Your task to perform on an android device: turn on priority inbox in the gmail app Image 0: 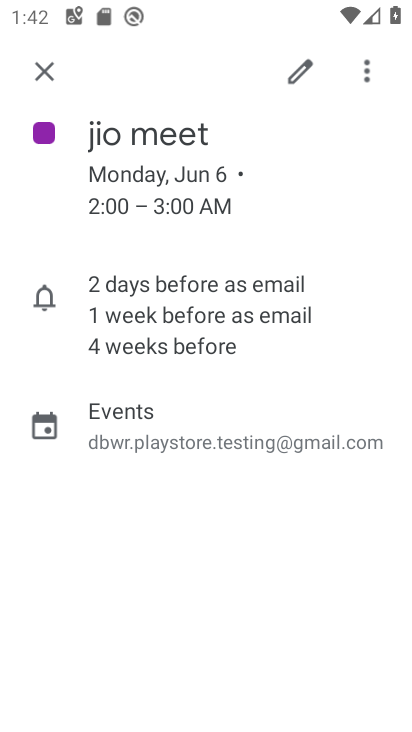
Step 0: press home button
Your task to perform on an android device: turn on priority inbox in the gmail app Image 1: 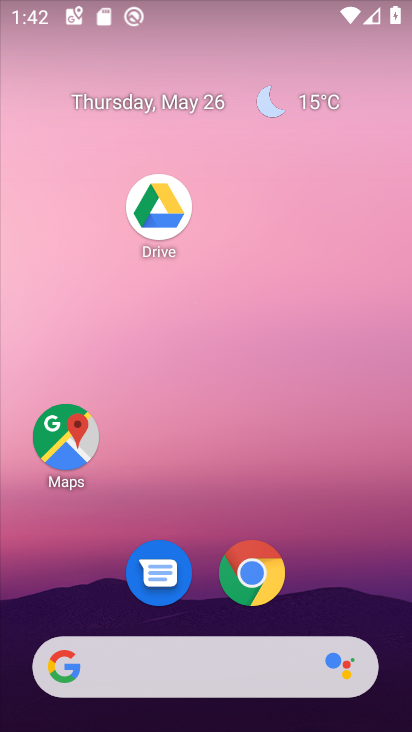
Step 1: drag from (343, 566) to (320, 210)
Your task to perform on an android device: turn on priority inbox in the gmail app Image 2: 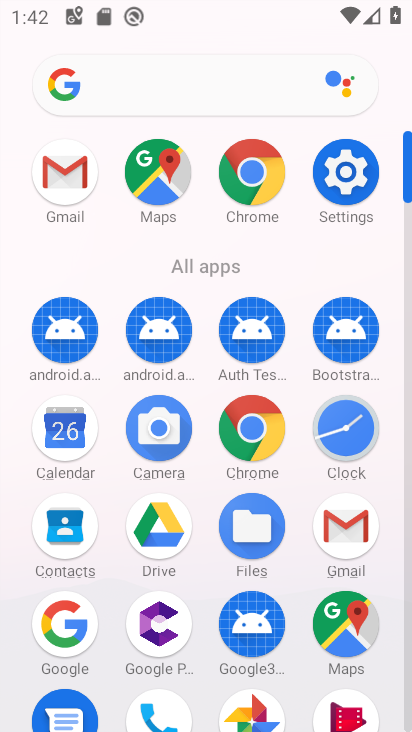
Step 2: click (71, 175)
Your task to perform on an android device: turn on priority inbox in the gmail app Image 3: 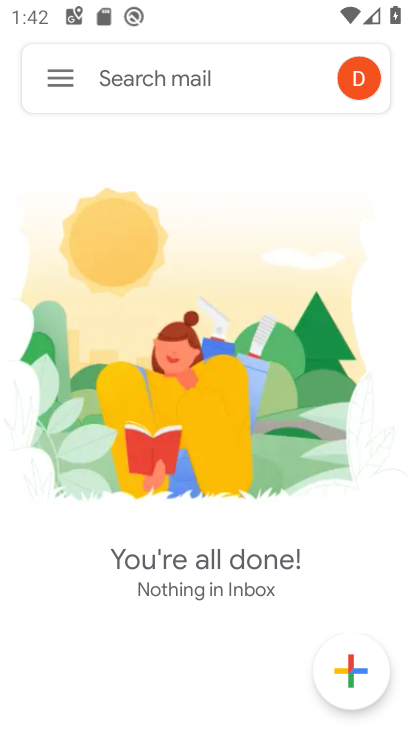
Step 3: click (77, 91)
Your task to perform on an android device: turn on priority inbox in the gmail app Image 4: 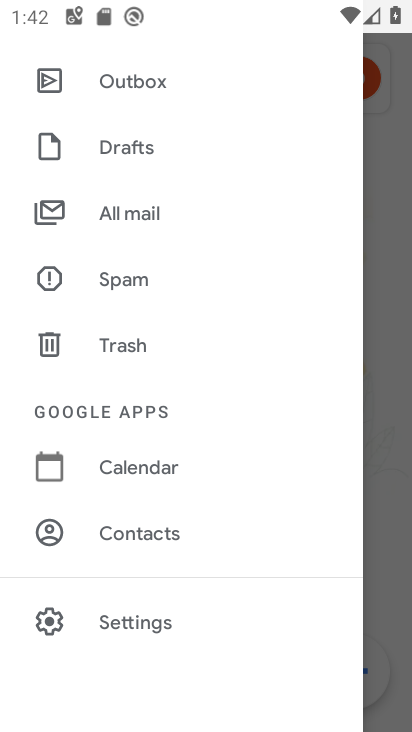
Step 4: click (164, 614)
Your task to perform on an android device: turn on priority inbox in the gmail app Image 5: 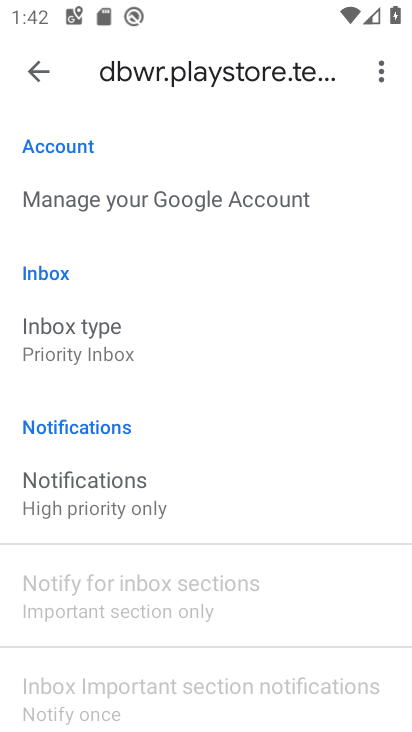
Step 5: click (174, 326)
Your task to perform on an android device: turn on priority inbox in the gmail app Image 6: 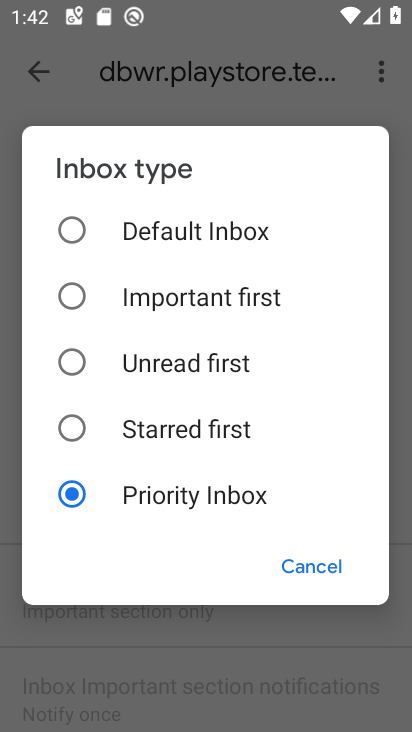
Step 6: task complete